Your task to perform on an android device: open the mobile data screen to see how much data has been used Image 0: 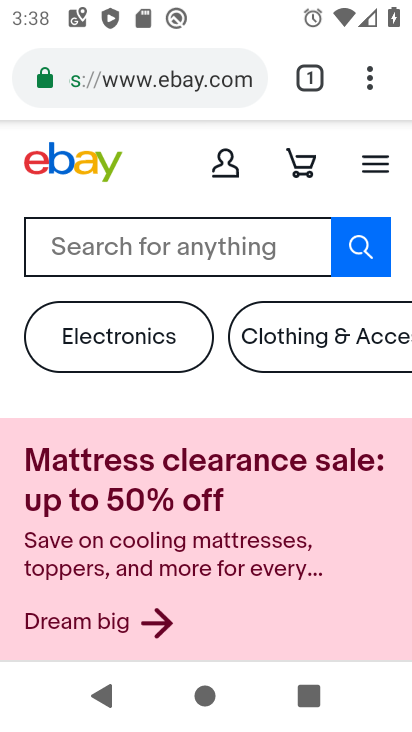
Step 0: press home button
Your task to perform on an android device: open the mobile data screen to see how much data has been used Image 1: 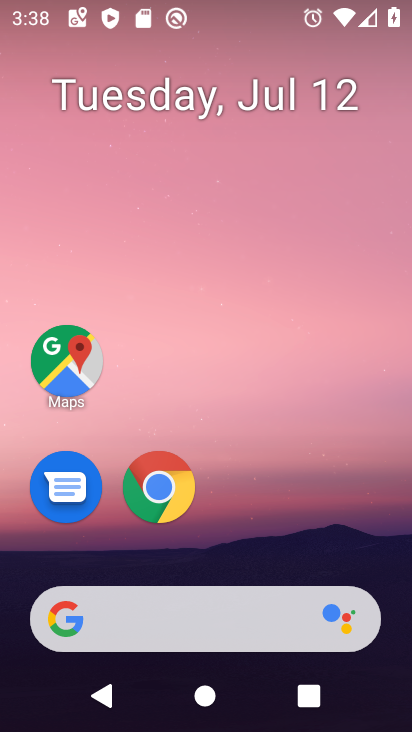
Step 1: drag from (159, 549) to (187, 353)
Your task to perform on an android device: open the mobile data screen to see how much data has been used Image 2: 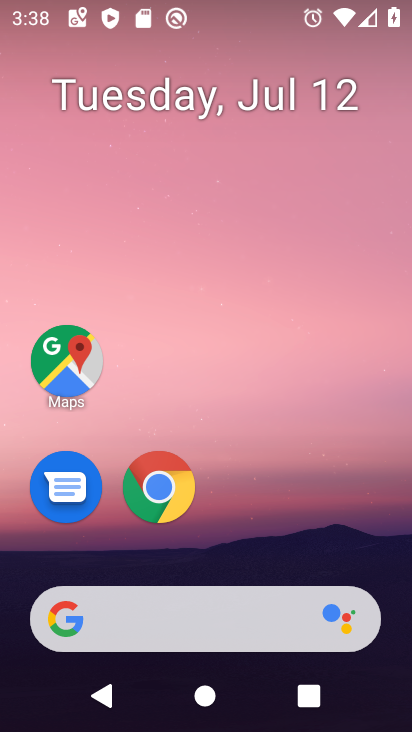
Step 2: drag from (243, 574) to (282, 304)
Your task to perform on an android device: open the mobile data screen to see how much data has been used Image 3: 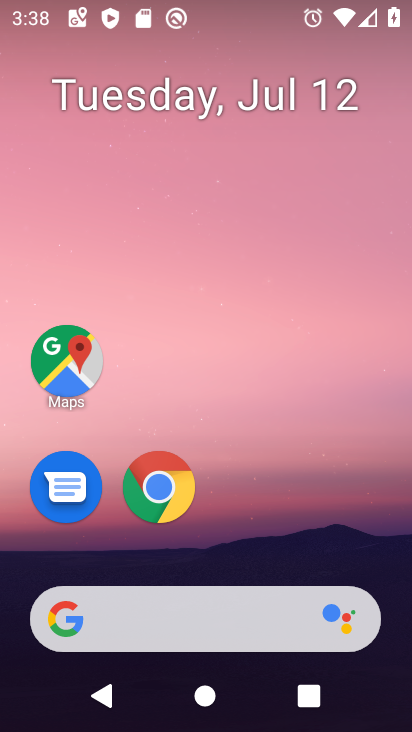
Step 3: drag from (202, 443) to (211, 244)
Your task to perform on an android device: open the mobile data screen to see how much data has been used Image 4: 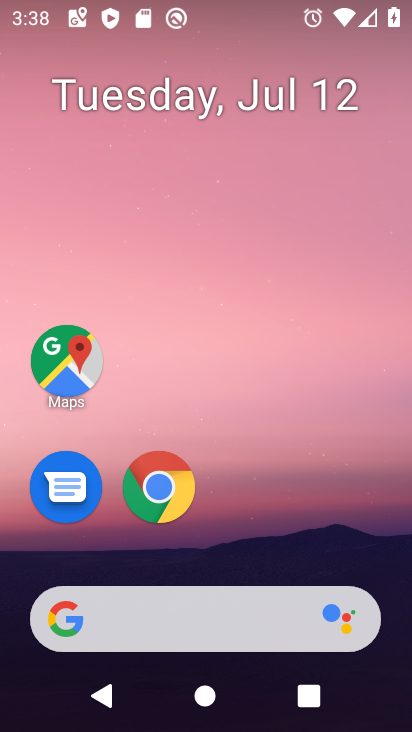
Step 4: drag from (184, 602) to (207, 202)
Your task to perform on an android device: open the mobile data screen to see how much data has been used Image 5: 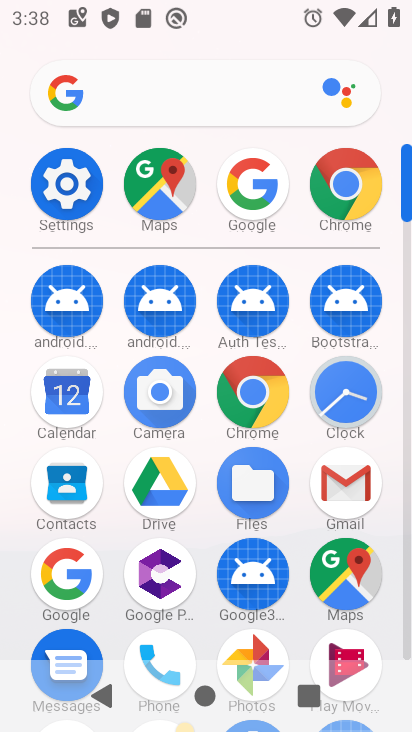
Step 5: click (71, 185)
Your task to perform on an android device: open the mobile data screen to see how much data has been used Image 6: 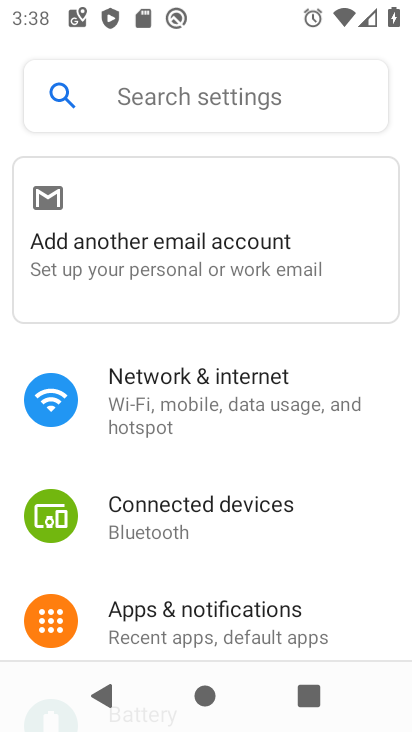
Step 6: click (148, 421)
Your task to perform on an android device: open the mobile data screen to see how much data has been used Image 7: 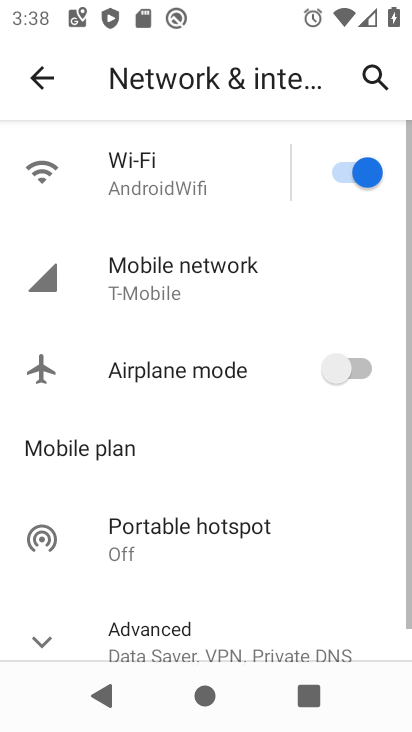
Step 7: click (165, 271)
Your task to perform on an android device: open the mobile data screen to see how much data has been used Image 8: 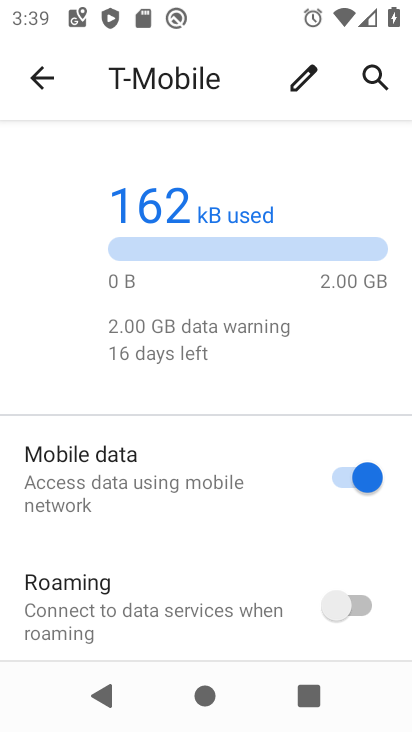
Step 8: task complete